Your task to perform on an android device: delete a single message in the gmail app Image 0: 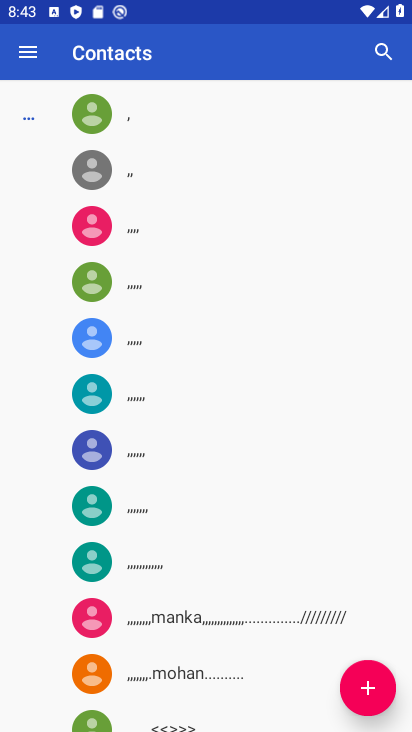
Step 0: press home button
Your task to perform on an android device: delete a single message in the gmail app Image 1: 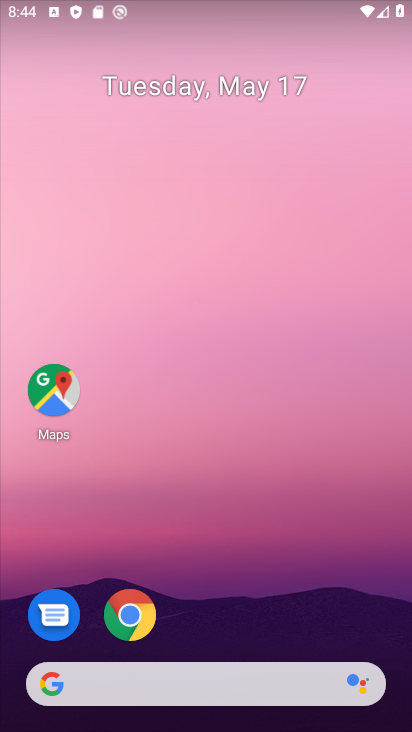
Step 1: drag from (380, 642) to (279, 56)
Your task to perform on an android device: delete a single message in the gmail app Image 2: 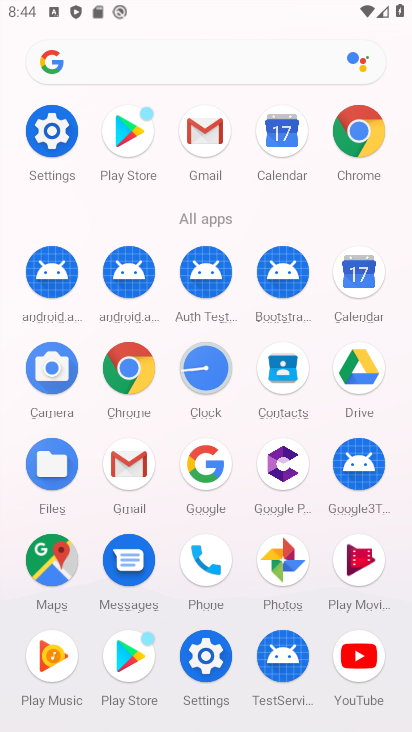
Step 2: click (127, 460)
Your task to perform on an android device: delete a single message in the gmail app Image 3: 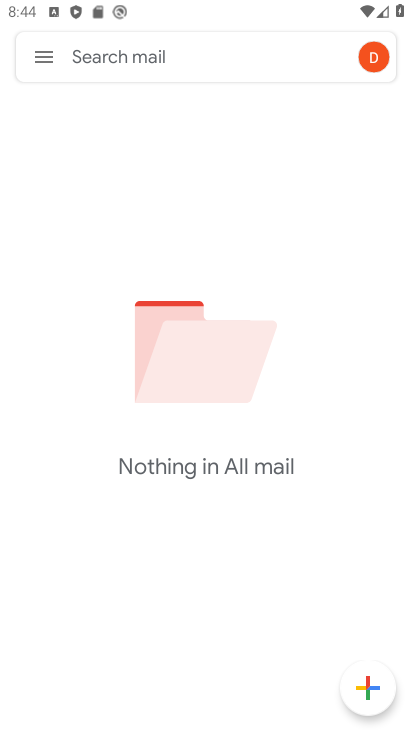
Step 3: click (45, 57)
Your task to perform on an android device: delete a single message in the gmail app Image 4: 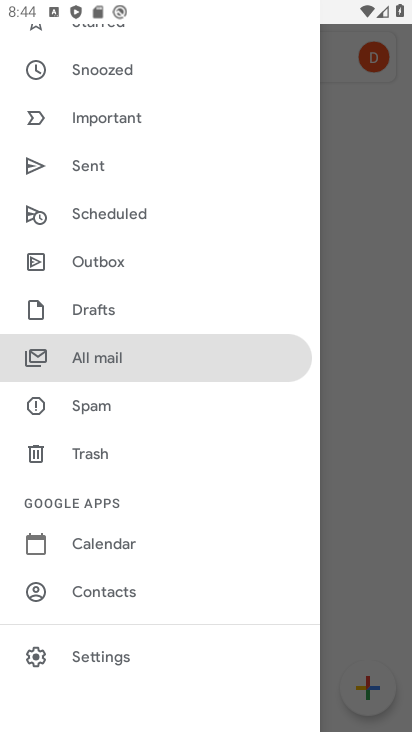
Step 4: click (164, 360)
Your task to perform on an android device: delete a single message in the gmail app Image 5: 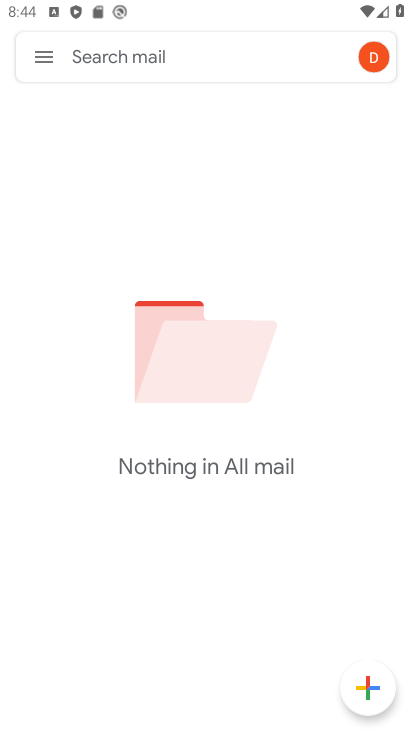
Step 5: task complete